Your task to perform on an android device: star an email in the gmail app Image 0: 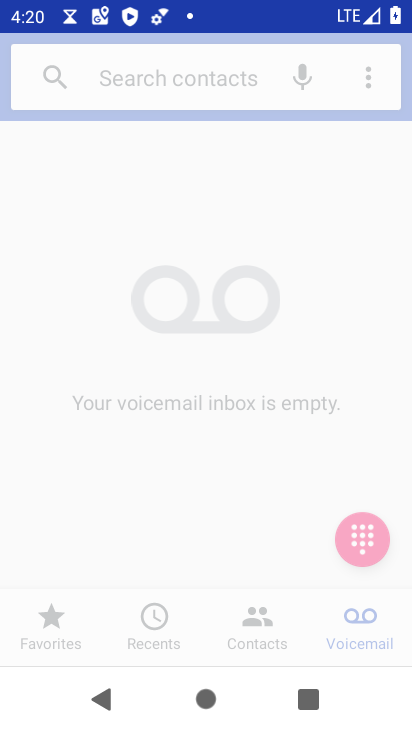
Step 0: drag from (327, 540) to (342, 253)
Your task to perform on an android device: star an email in the gmail app Image 1: 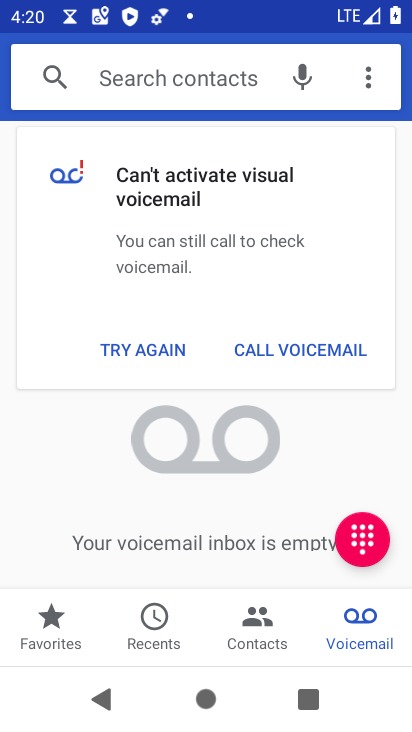
Step 1: press back button
Your task to perform on an android device: star an email in the gmail app Image 2: 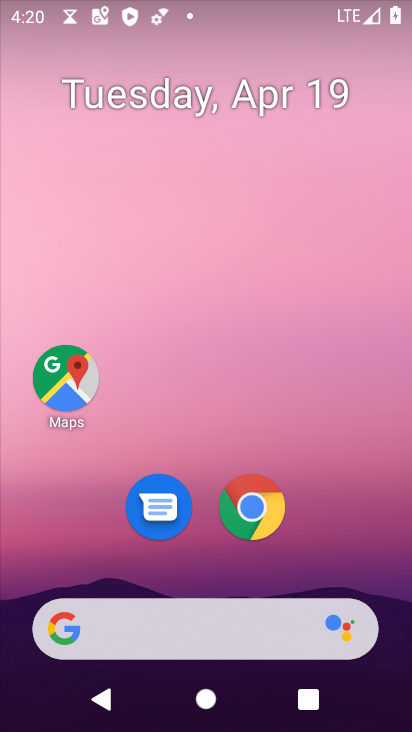
Step 2: drag from (298, 542) to (363, 53)
Your task to perform on an android device: star an email in the gmail app Image 3: 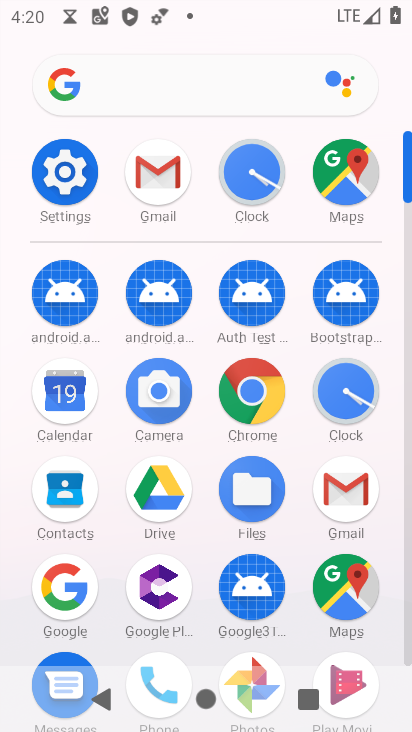
Step 3: click (342, 483)
Your task to perform on an android device: star an email in the gmail app Image 4: 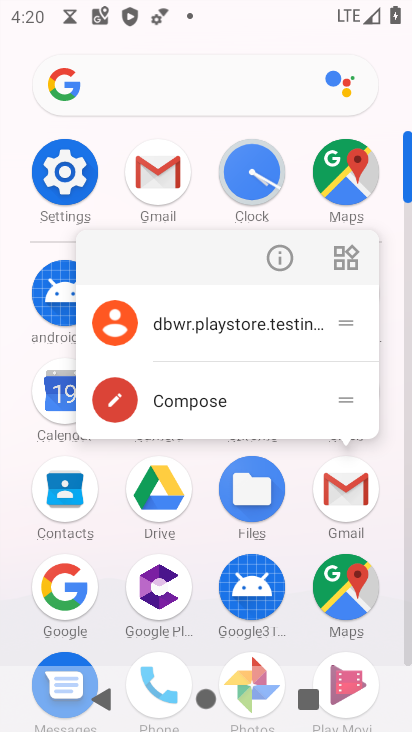
Step 4: click (342, 483)
Your task to perform on an android device: star an email in the gmail app Image 5: 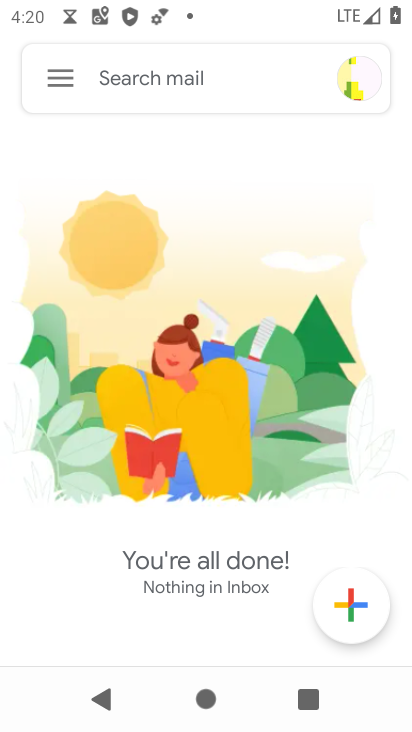
Step 5: task complete